Your task to perform on an android device: Open the stopwatch Image 0: 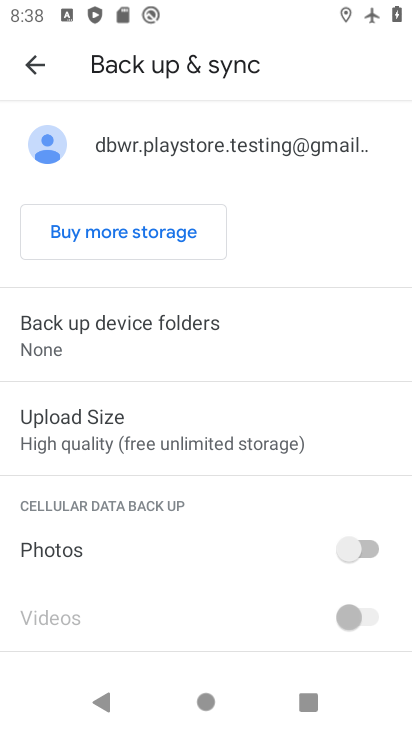
Step 0: press home button
Your task to perform on an android device: Open the stopwatch Image 1: 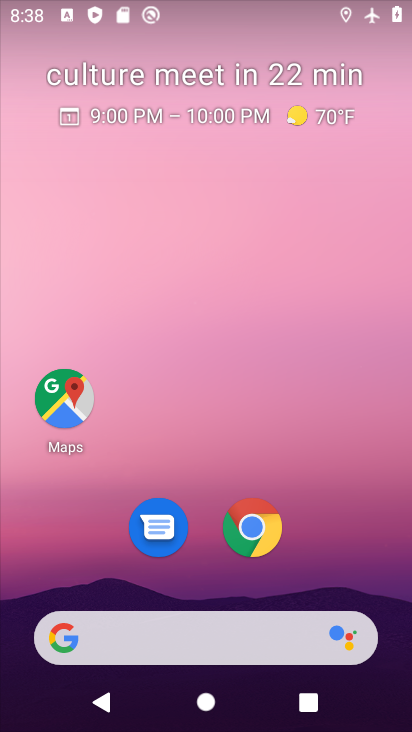
Step 1: drag from (231, 615) to (265, 231)
Your task to perform on an android device: Open the stopwatch Image 2: 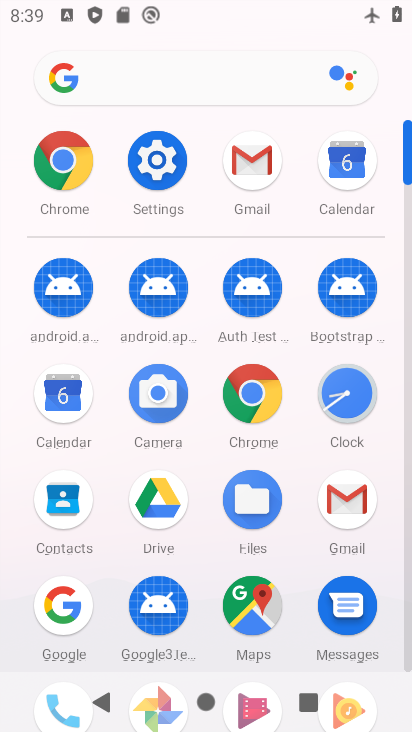
Step 2: click (345, 429)
Your task to perform on an android device: Open the stopwatch Image 3: 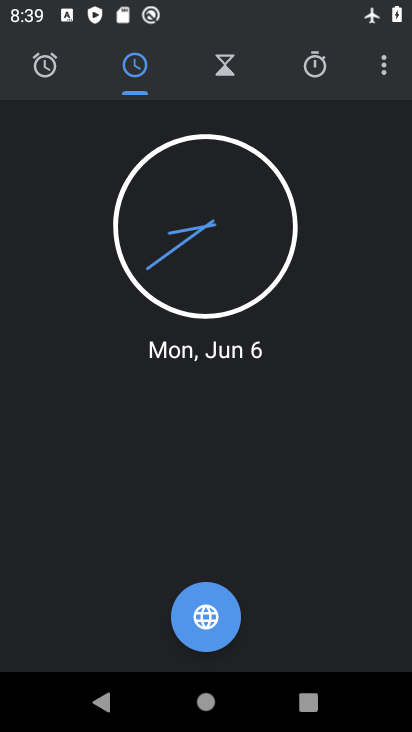
Step 3: click (310, 65)
Your task to perform on an android device: Open the stopwatch Image 4: 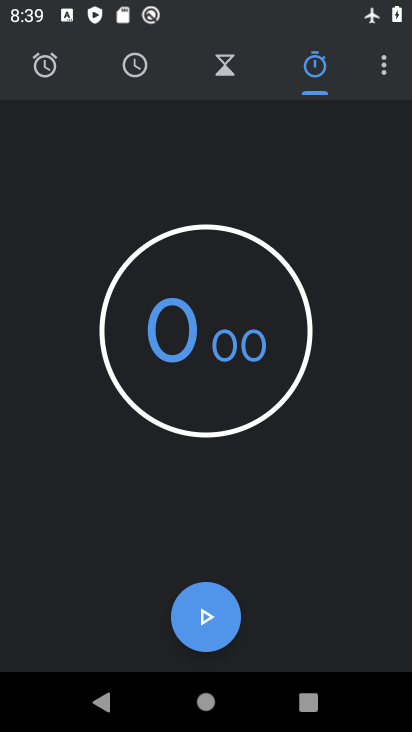
Step 4: task complete